Your task to perform on an android device: Open Google Maps and go to "Timeline" Image 0: 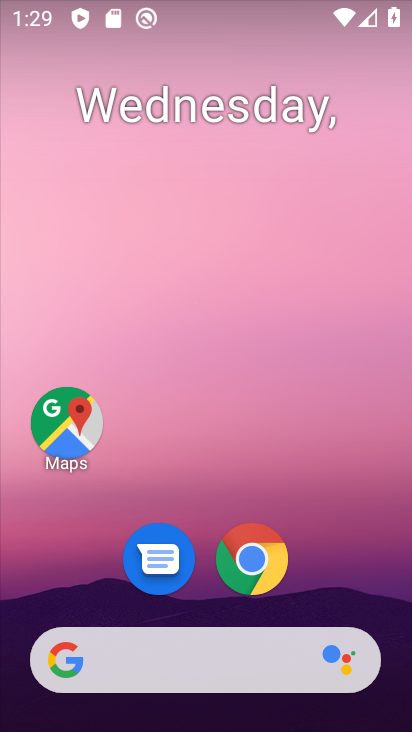
Step 0: click (60, 426)
Your task to perform on an android device: Open Google Maps and go to "Timeline" Image 1: 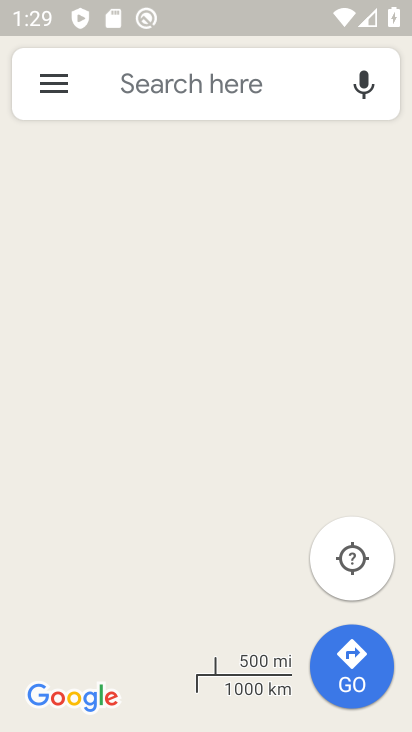
Step 1: click (44, 88)
Your task to perform on an android device: Open Google Maps and go to "Timeline" Image 2: 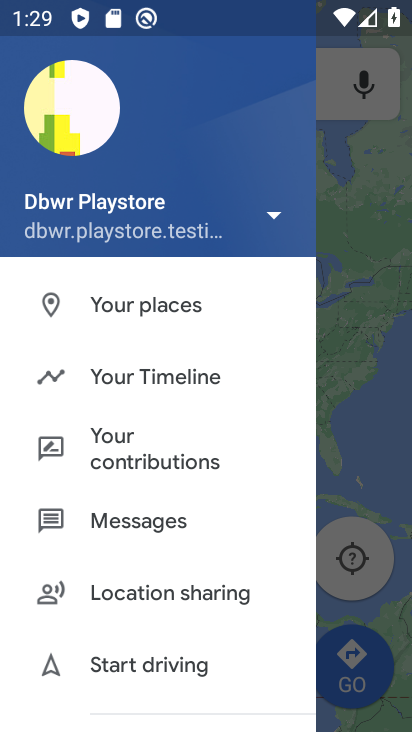
Step 2: click (118, 372)
Your task to perform on an android device: Open Google Maps and go to "Timeline" Image 3: 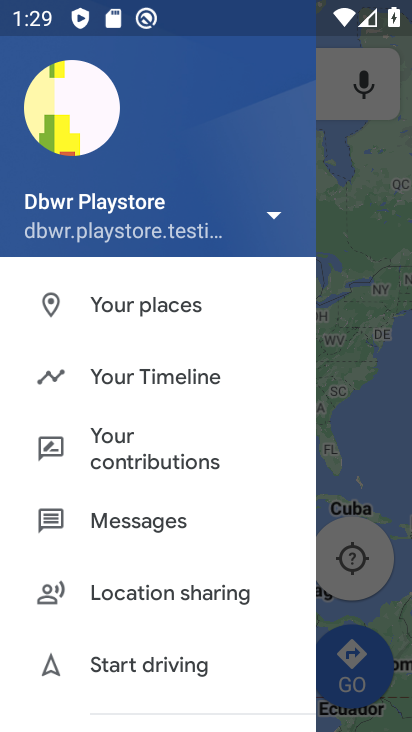
Step 3: click (118, 372)
Your task to perform on an android device: Open Google Maps and go to "Timeline" Image 4: 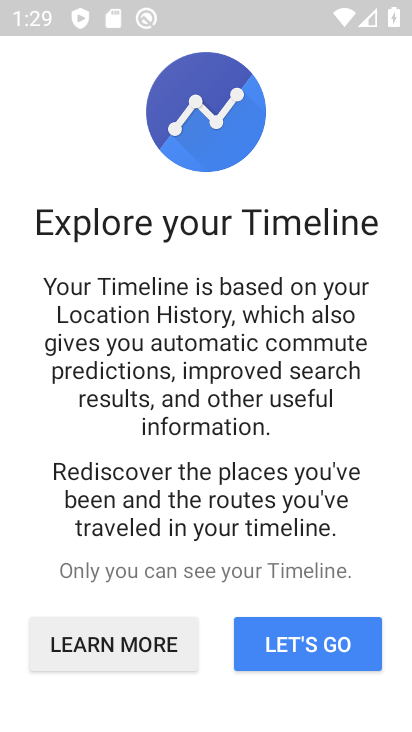
Step 4: click (309, 654)
Your task to perform on an android device: Open Google Maps and go to "Timeline" Image 5: 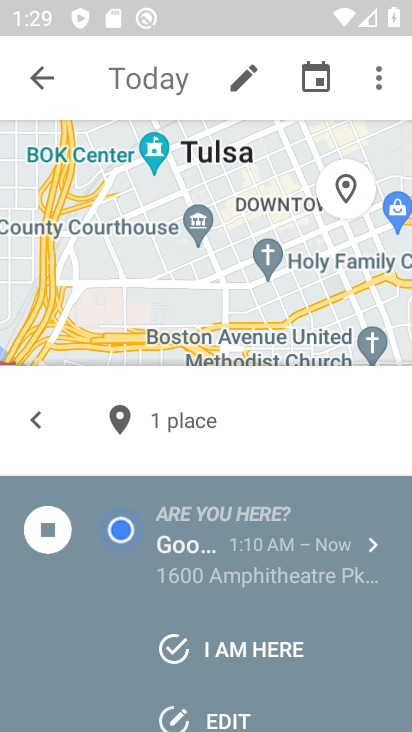
Step 5: task complete